Your task to perform on an android device: set an alarm Image 0: 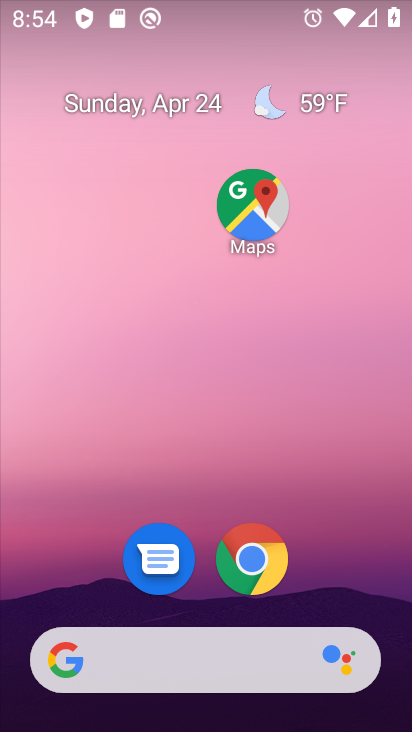
Step 0: drag from (16, 623) to (216, 292)
Your task to perform on an android device: set an alarm Image 1: 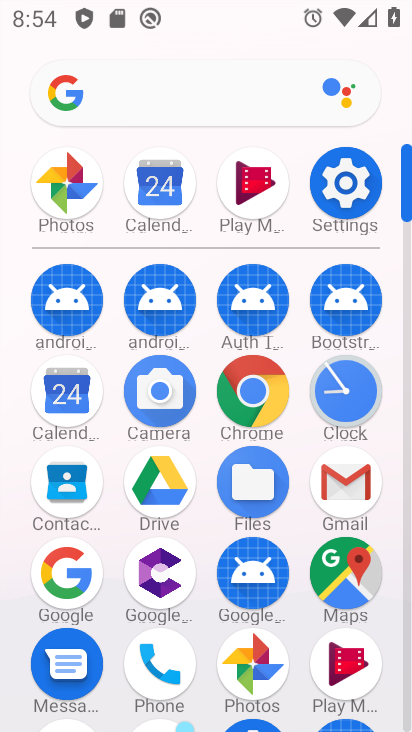
Step 1: click (350, 381)
Your task to perform on an android device: set an alarm Image 2: 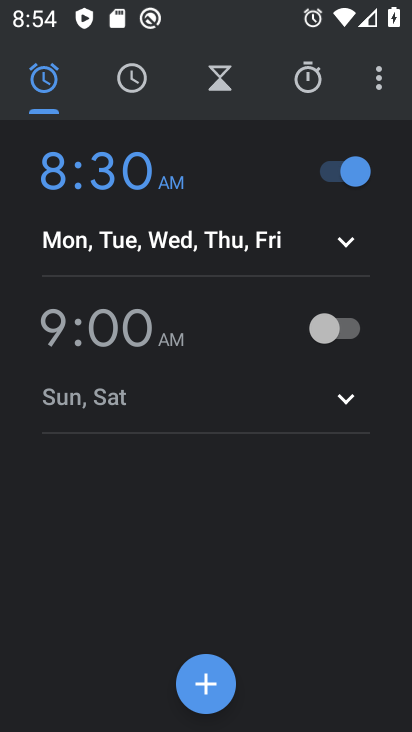
Step 2: click (318, 334)
Your task to perform on an android device: set an alarm Image 3: 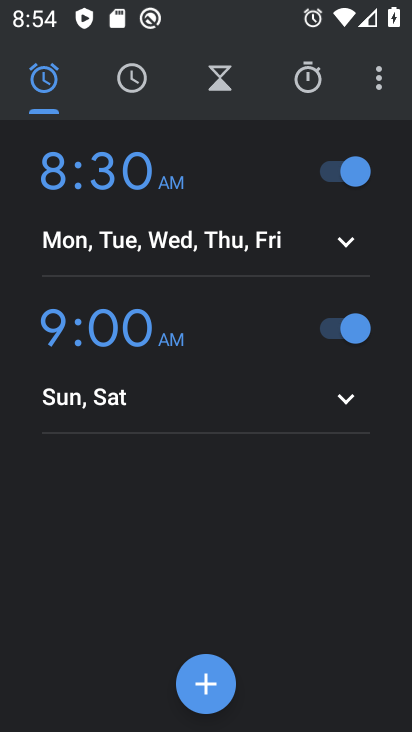
Step 3: task complete